Your task to perform on an android device: turn notification dots off Image 0: 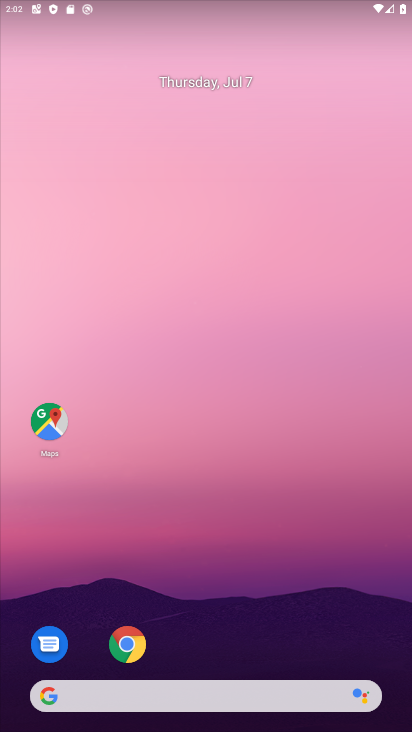
Step 0: drag from (196, 676) to (155, 268)
Your task to perform on an android device: turn notification dots off Image 1: 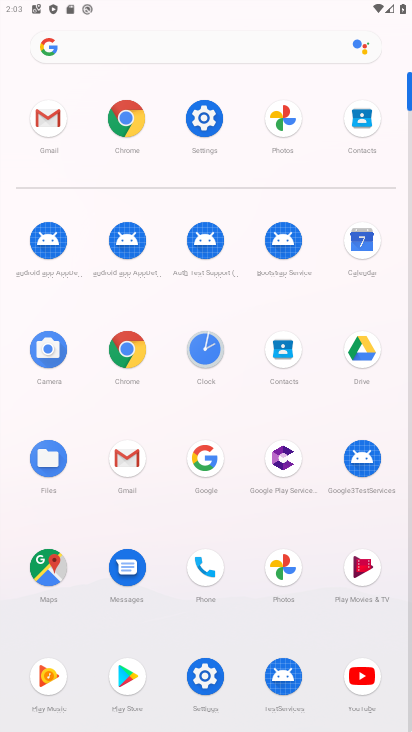
Step 1: click (208, 681)
Your task to perform on an android device: turn notification dots off Image 2: 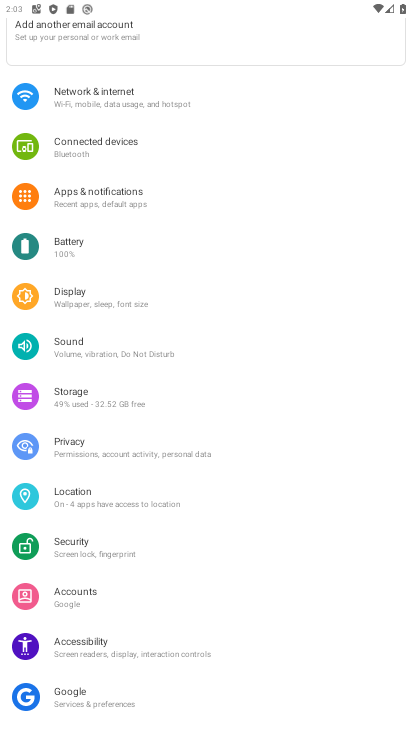
Step 2: click (120, 192)
Your task to perform on an android device: turn notification dots off Image 3: 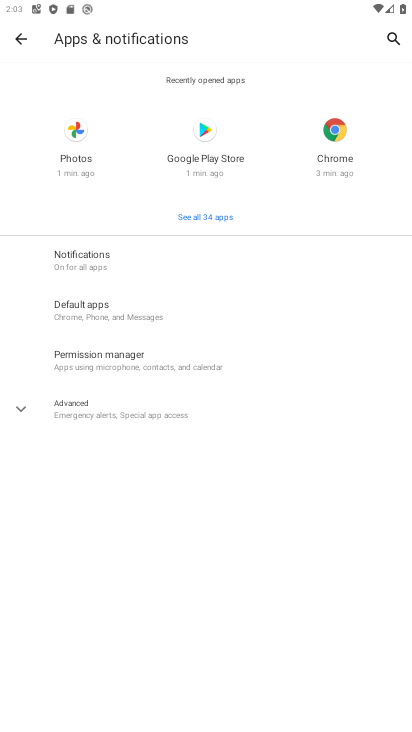
Step 3: click (86, 261)
Your task to perform on an android device: turn notification dots off Image 4: 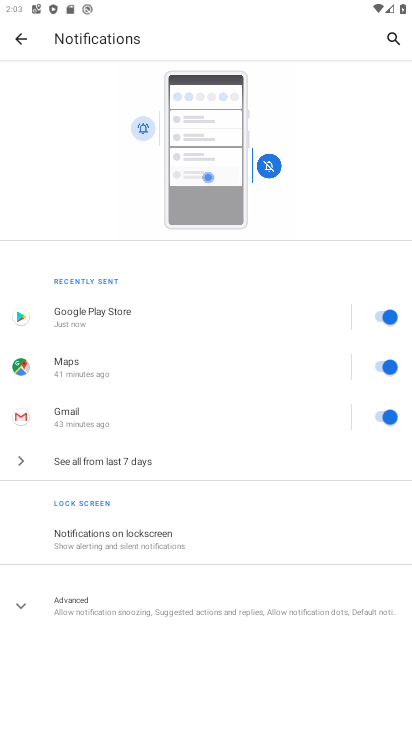
Step 4: click (178, 601)
Your task to perform on an android device: turn notification dots off Image 5: 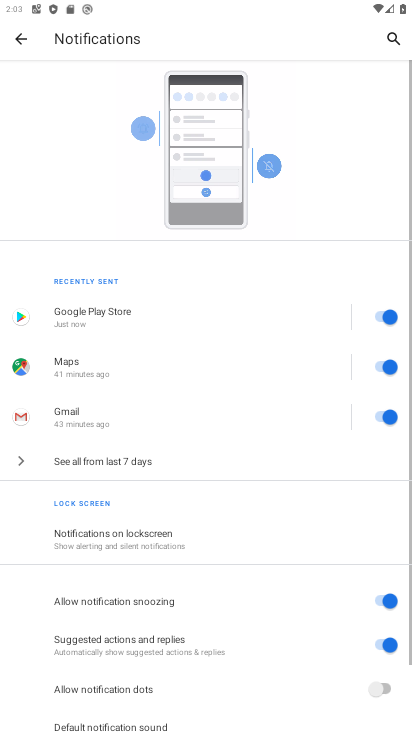
Step 5: task complete